Your task to perform on an android device: Go to Amazon Image 0: 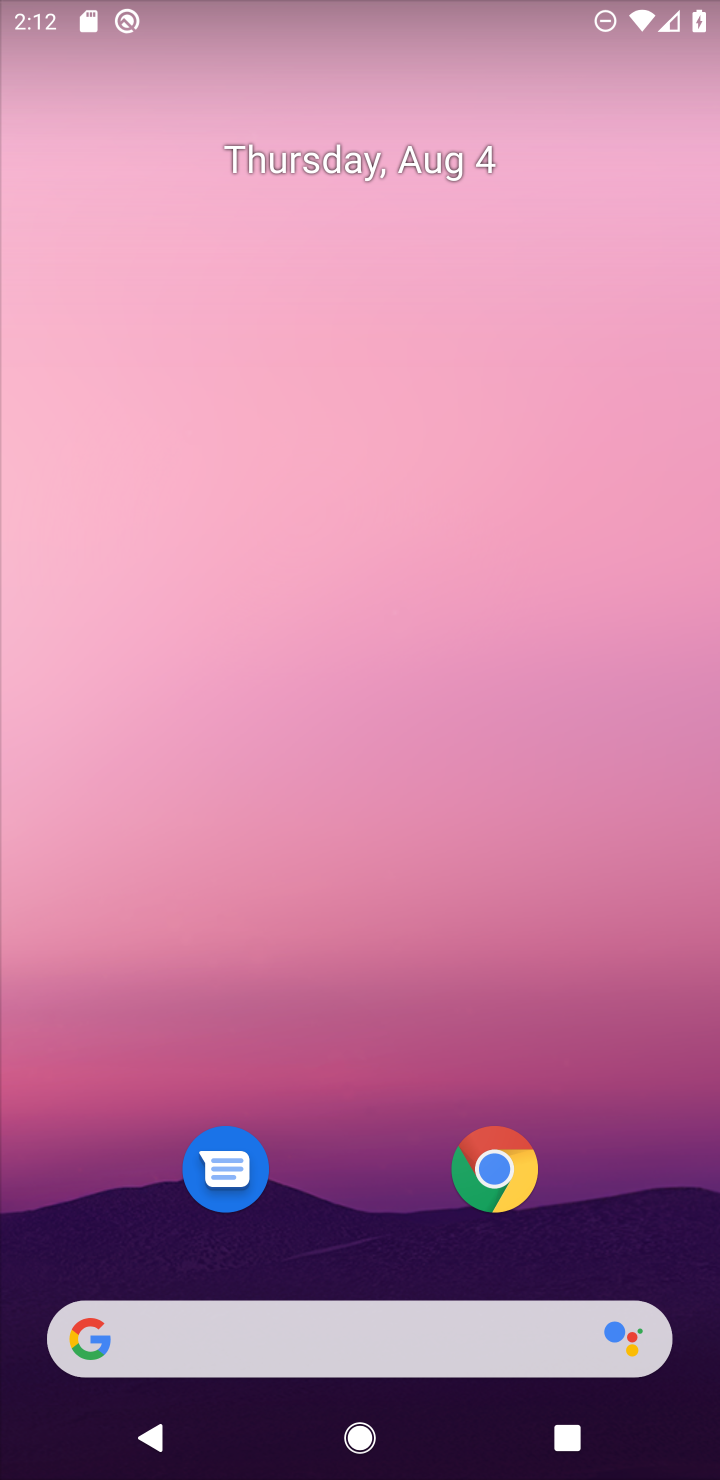
Step 0: click (498, 1176)
Your task to perform on an android device: Go to Amazon Image 1: 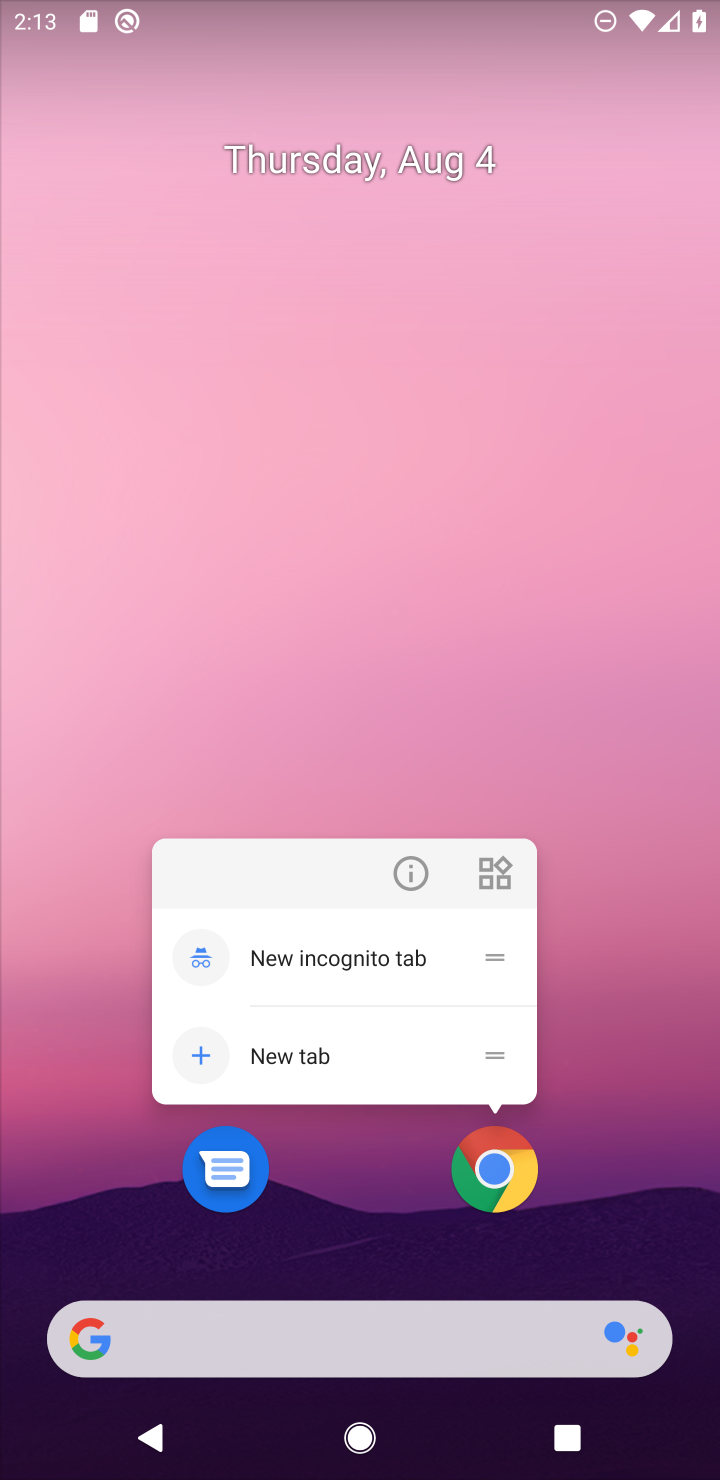
Step 1: click (504, 1173)
Your task to perform on an android device: Go to Amazon Image 2: 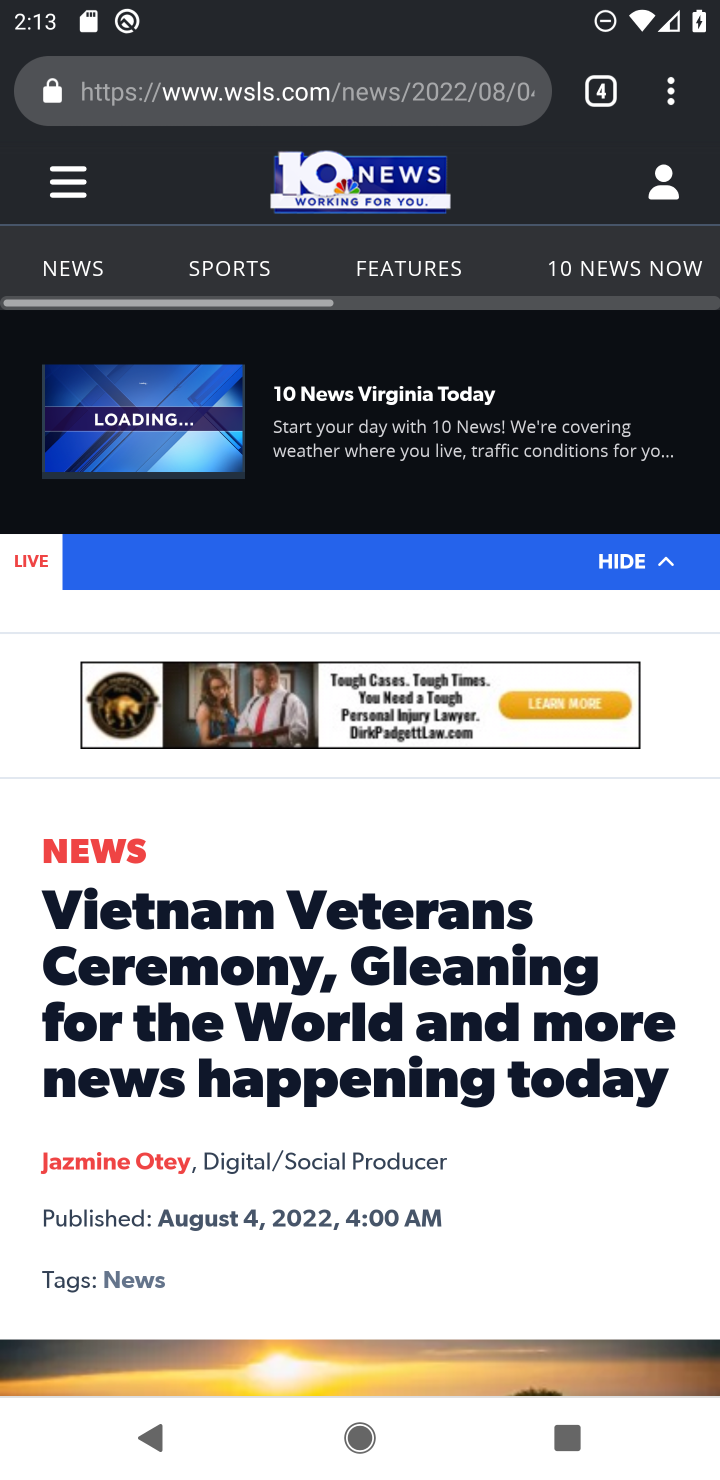
Step 2: click (293, 96)
Your task to perform on an android device: Go to Amazon Image 3: 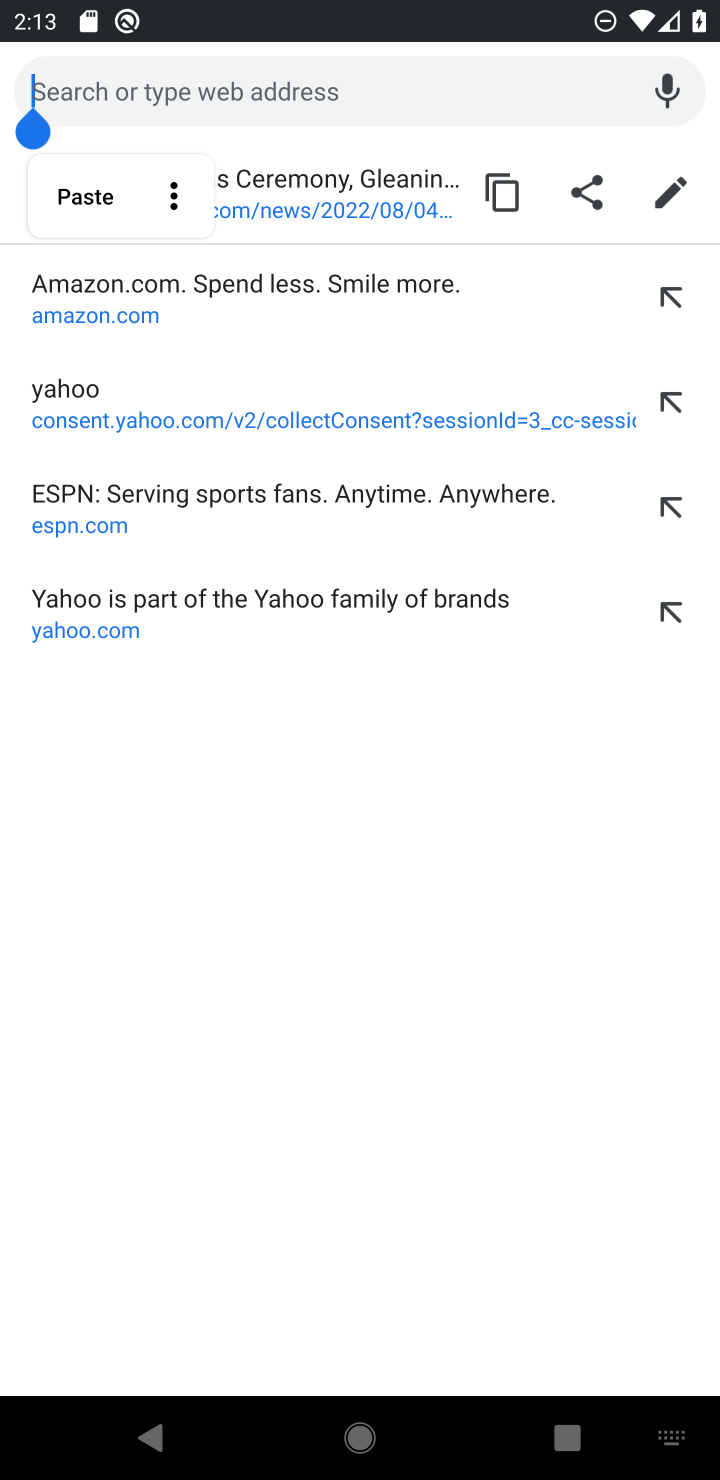
Step 3: click (89, 316)
Your task to perform on an android device: Go to Amazon Image 4: 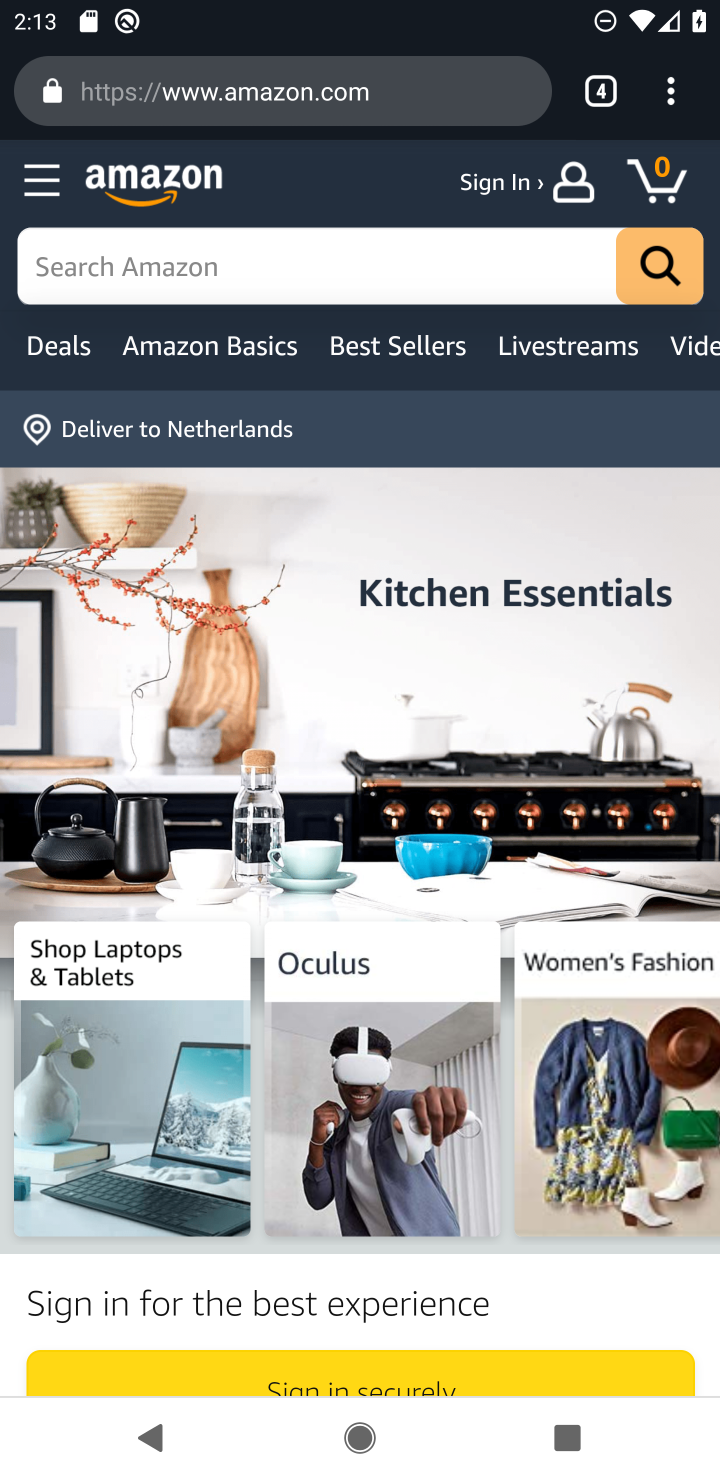
Step 4: task complete